Your task to perform on an android device: Clear all items from cart on bestbuy.com. Search for logitech g502 on bestbuy.com, select the first entry, add it to the cart, then select checkout. Image 0: 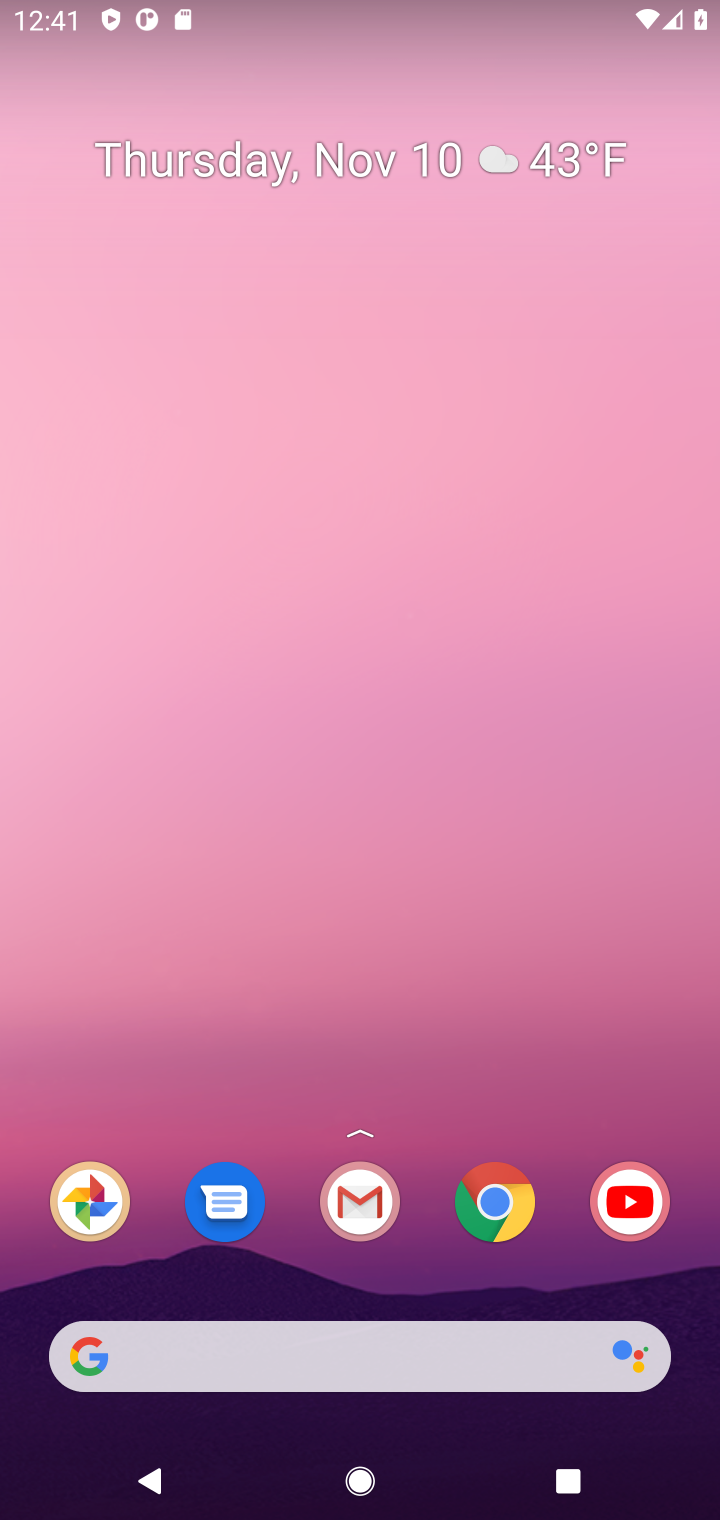
Step 0: click (497, 1179)
Your task to perform on an android device: Clear all items from cart on bestbuy.com. Search for logitech g502 on bestbuy.com, select the first entry, add it to the cart, then select checkout. Image 1: 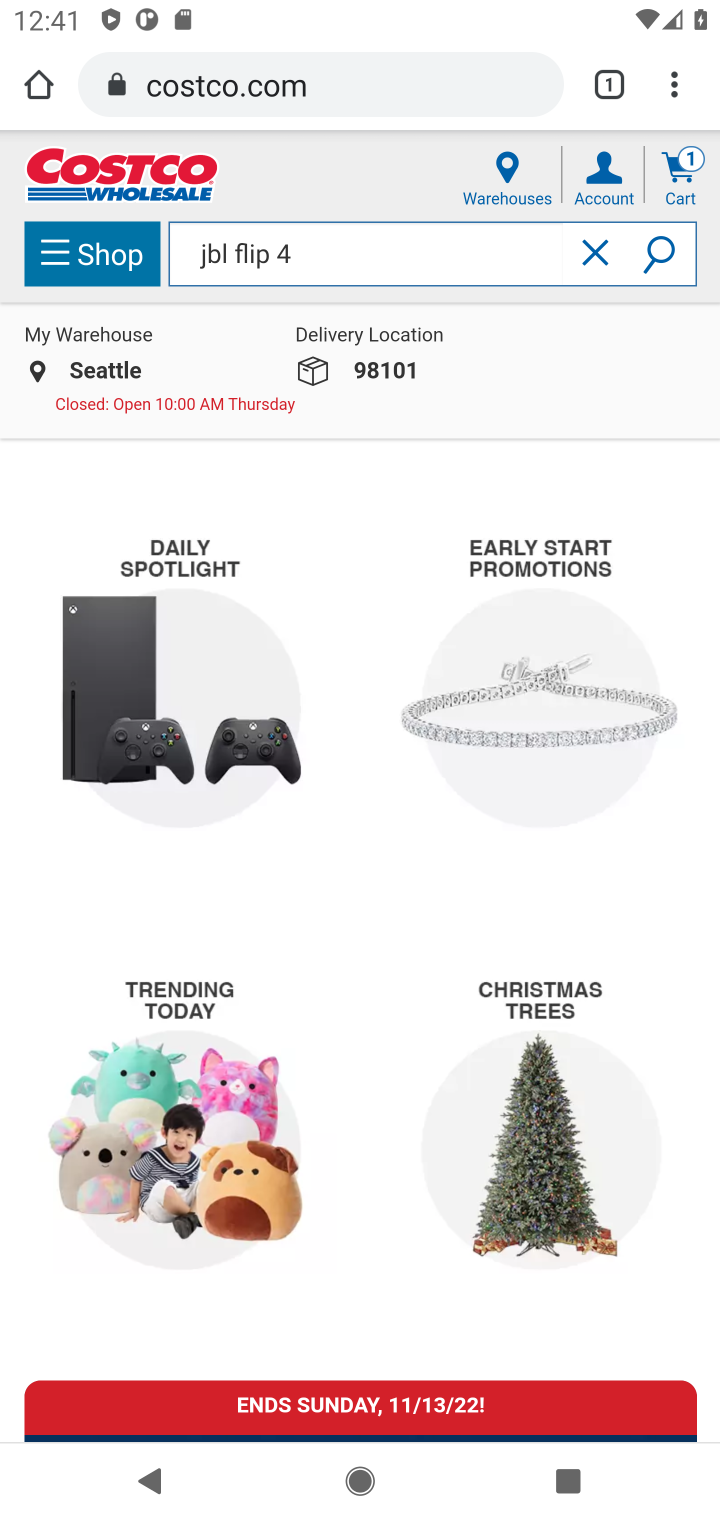
Step 1: click (352, 86)
Your task to perform on an android device: Clear all items from cart on bestbuy.com. Search for logitech g502 on bestbuy.com, select the first entry, add it to the cart, then select checkout. Image 2: 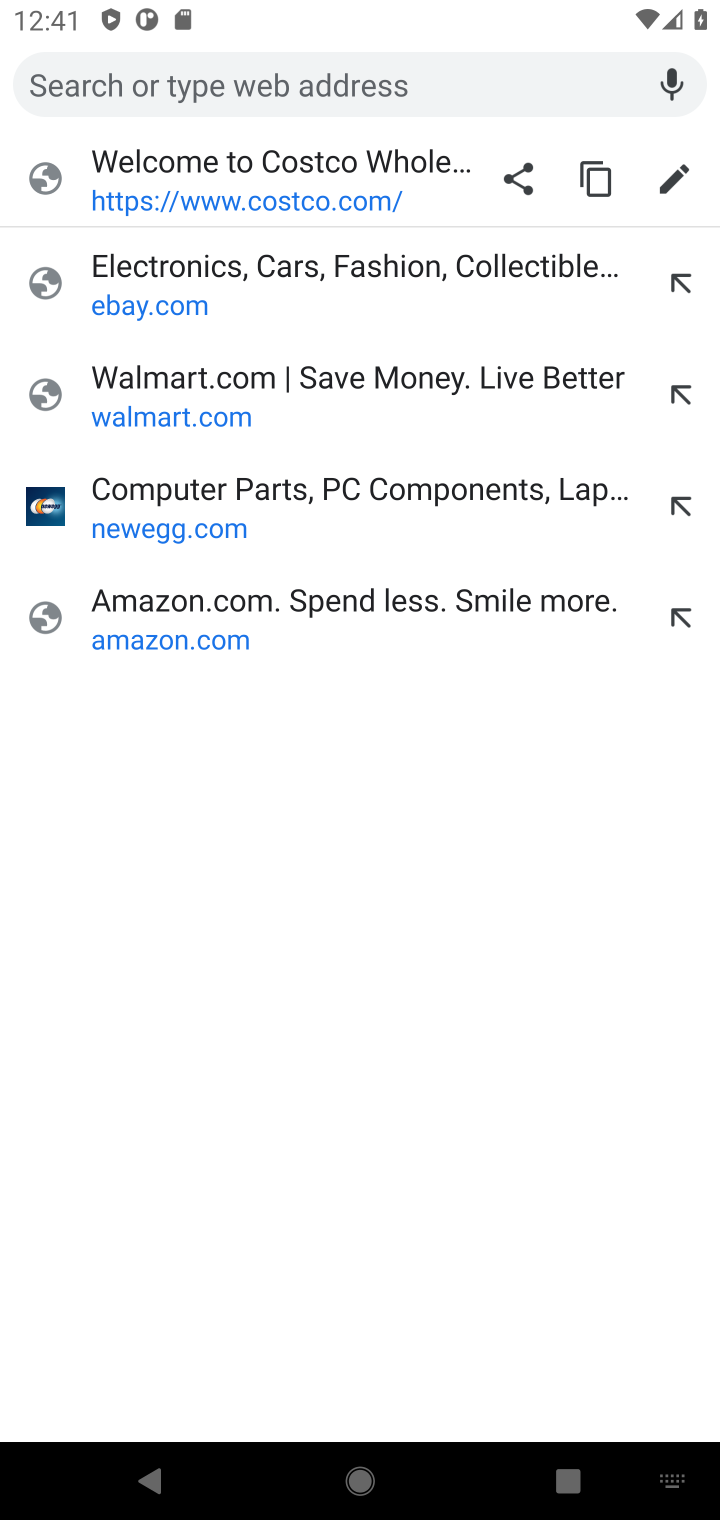
Step 2: type "bestbuy.com"
Your task to perform on an android device: Clear all items from cart on bestbuy.com. Search for logitech g502 on bestbuy.com, select the first entry, add it to the cart, then select checkout. Image 3: 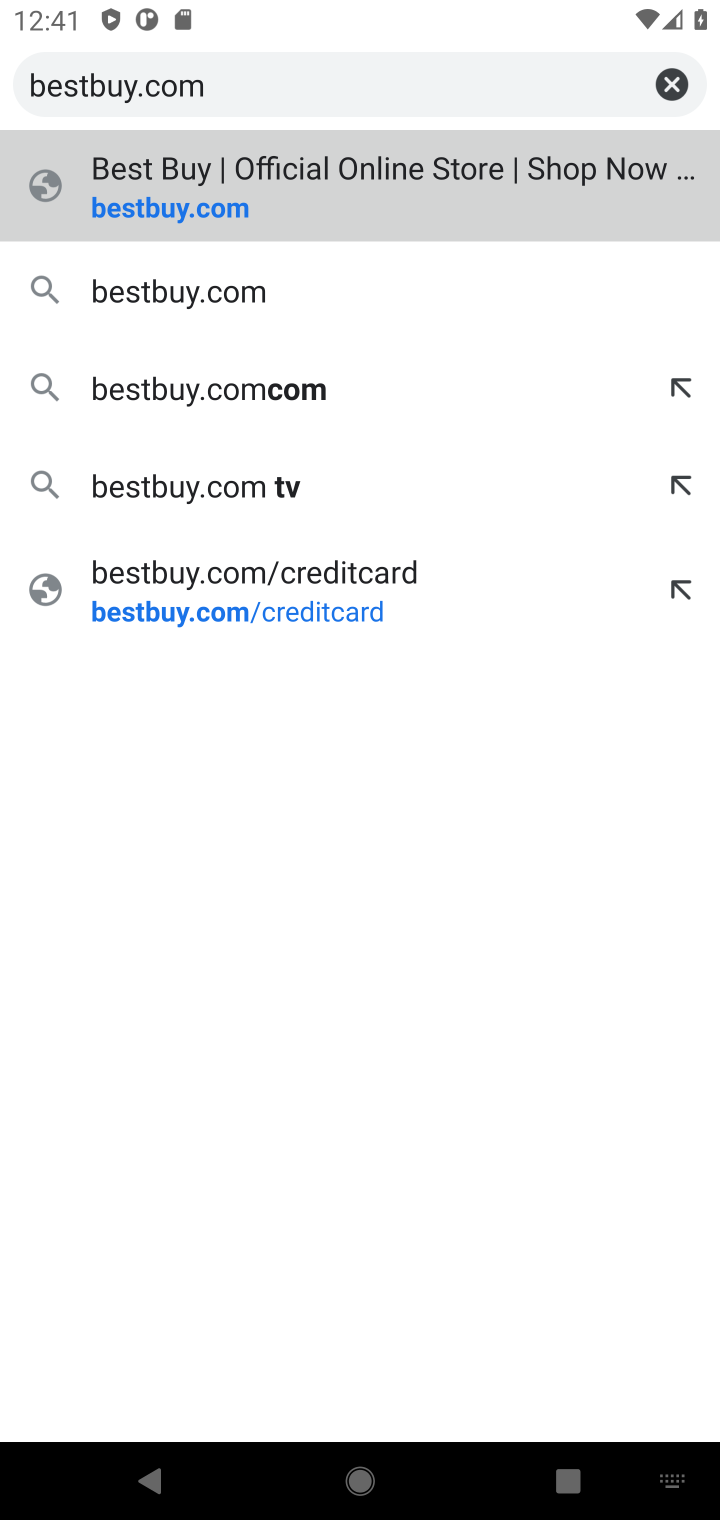
Step 3: click (239, 294)
Your task to perform on an android device: Clear all items from cart on bestbuy.com. Search for logitech g502 on bestbuy.com, select the first entry, add it to the cart, then select checkout. Image 4: 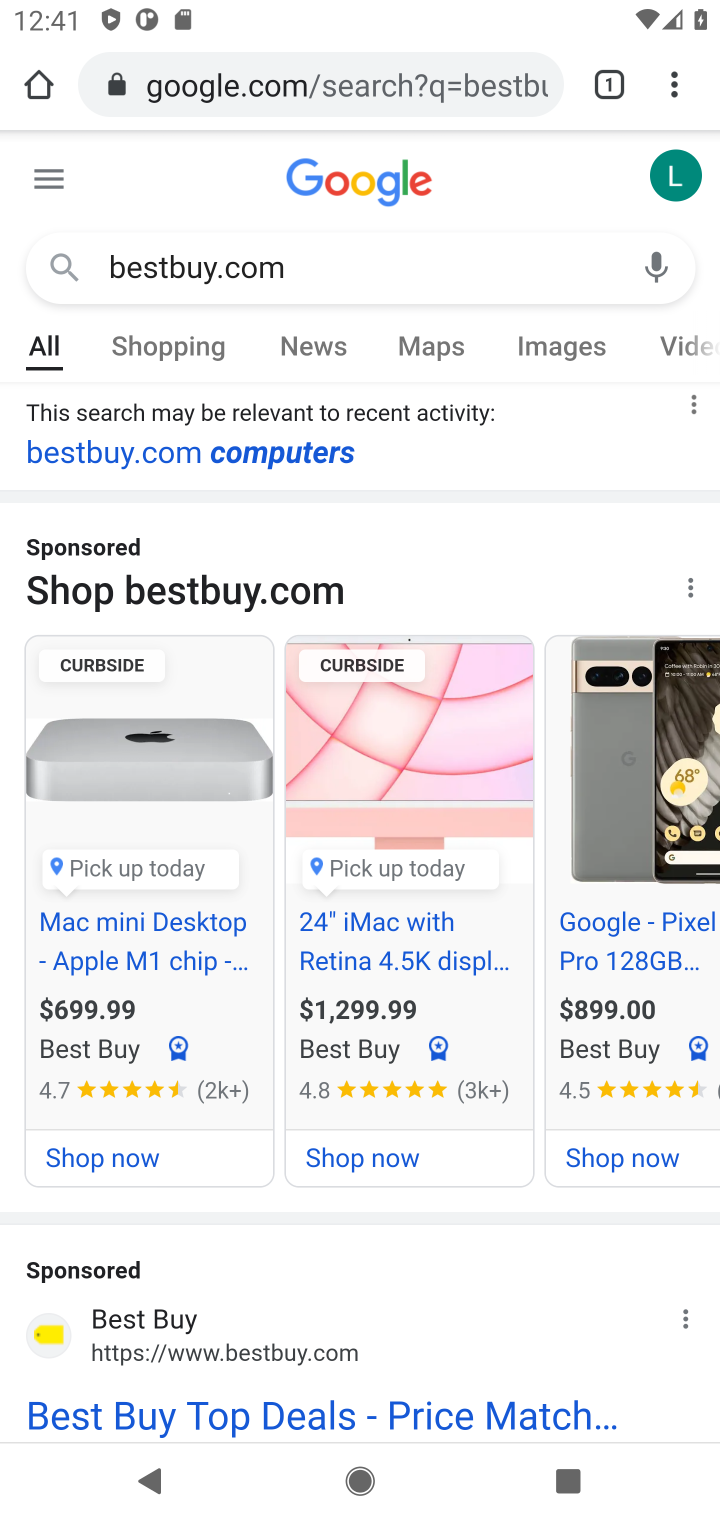
Step 4: click (326, 1348)
Your task to perform on an android device: Clear all items from cart on bestbuy.com. Search for logitech g502 on bestbuy.com, select the first entry, add it to the cart, then select checkout. Image 5: 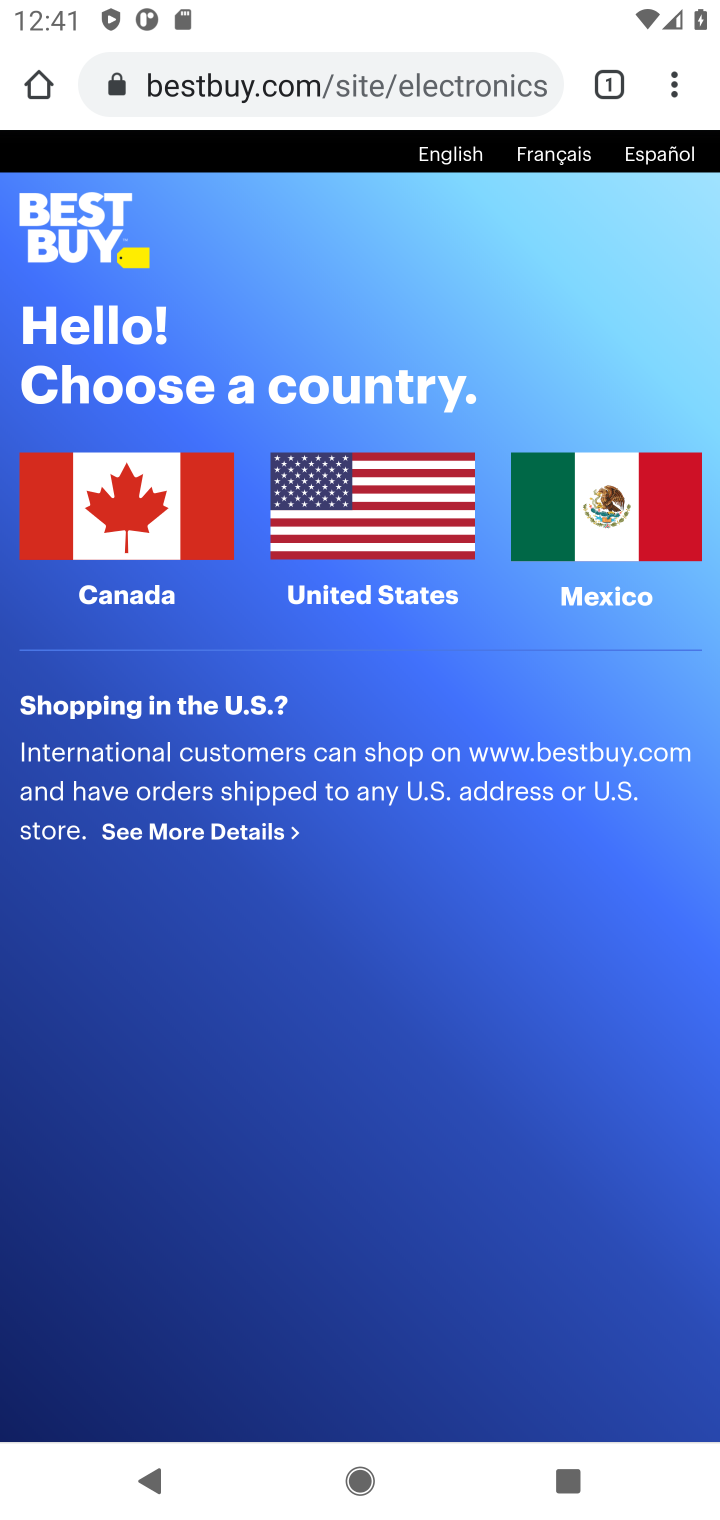
Step 5: click (380, 526)
Your task to perform on an android device: Clear all items from cart on bestbuy.com. Search for logitech g502 on bestbuy.com, select the first entry, add it to the cart, then select checkout. Image 6: 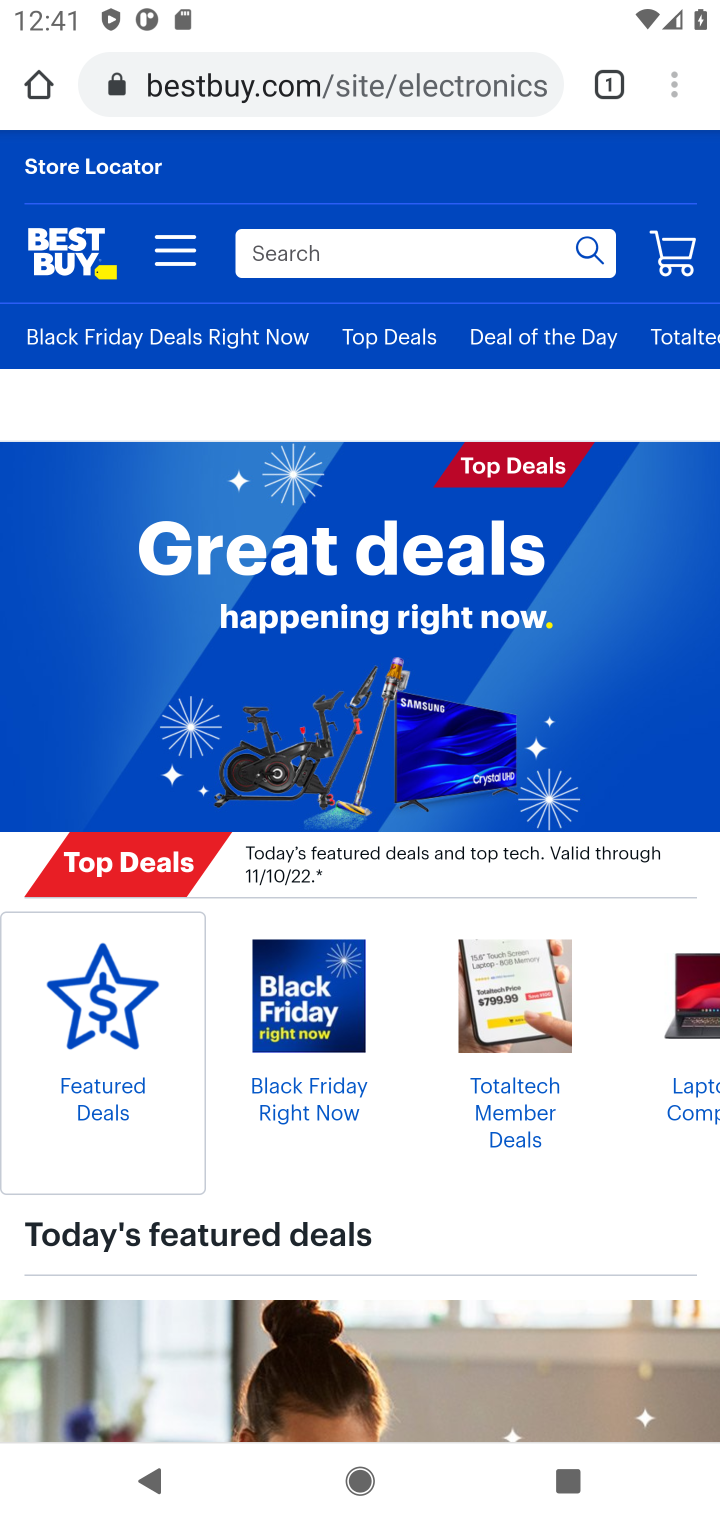
Step 6: click (676, 262)
Your task to perform on an android device: Clear all items from cart on bestbuy.com. Search for logitech g502 on bestbuy.com, select the first entry, add it to the cart, then select checkout. Image 7: 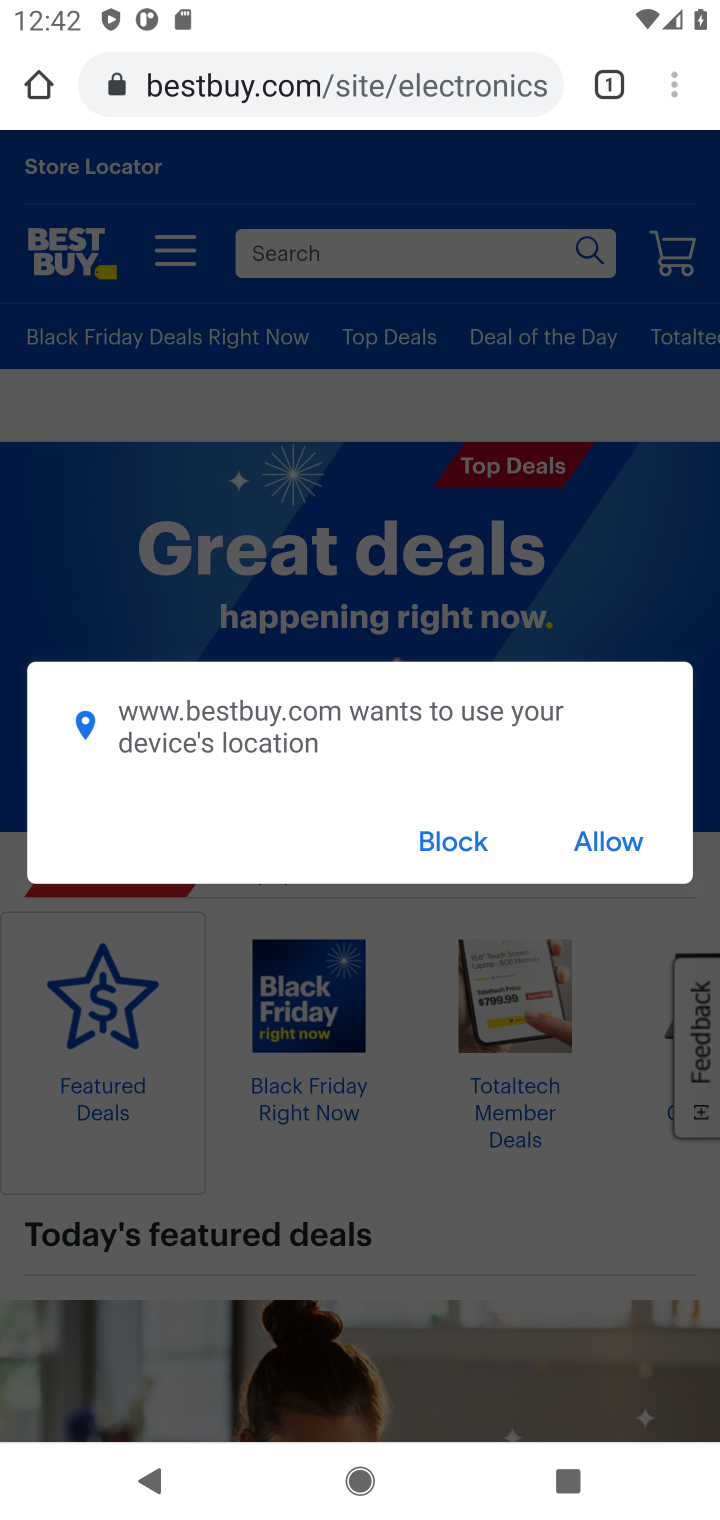
Step 7: click (676, 262)
Your task to perform on an android device: Clear all items from cart on bestbuy.com. Search for logitech g502 on bestbuy.com, select the first entry, add it to the cart, then select checkout. Image 8: 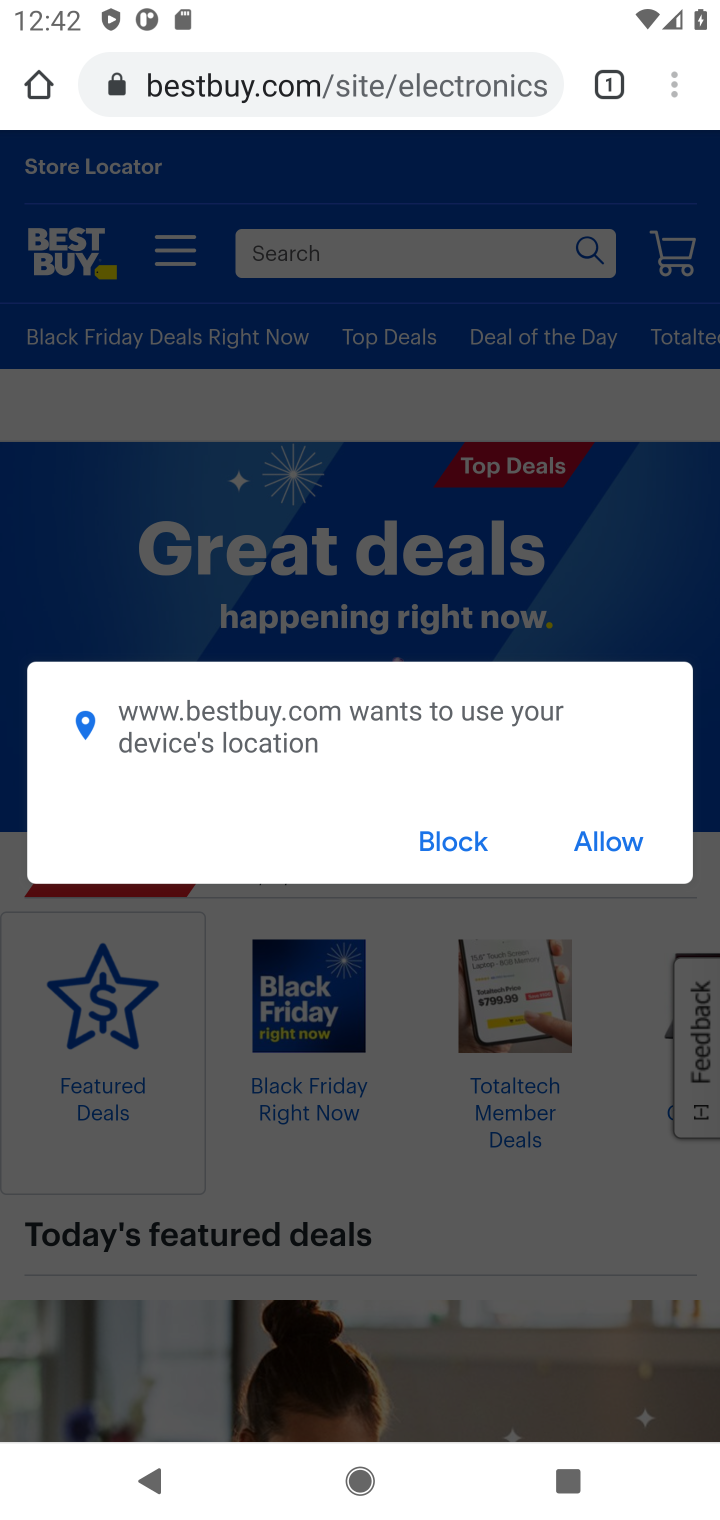
Step 8: click (466, 844)
Your task to perform on an android device: Clear all items from cart on bestbuy.com. Search for logitech g502 on bestbuy.com, select the first entry, add it to the cart, then select checkout. Image 9: 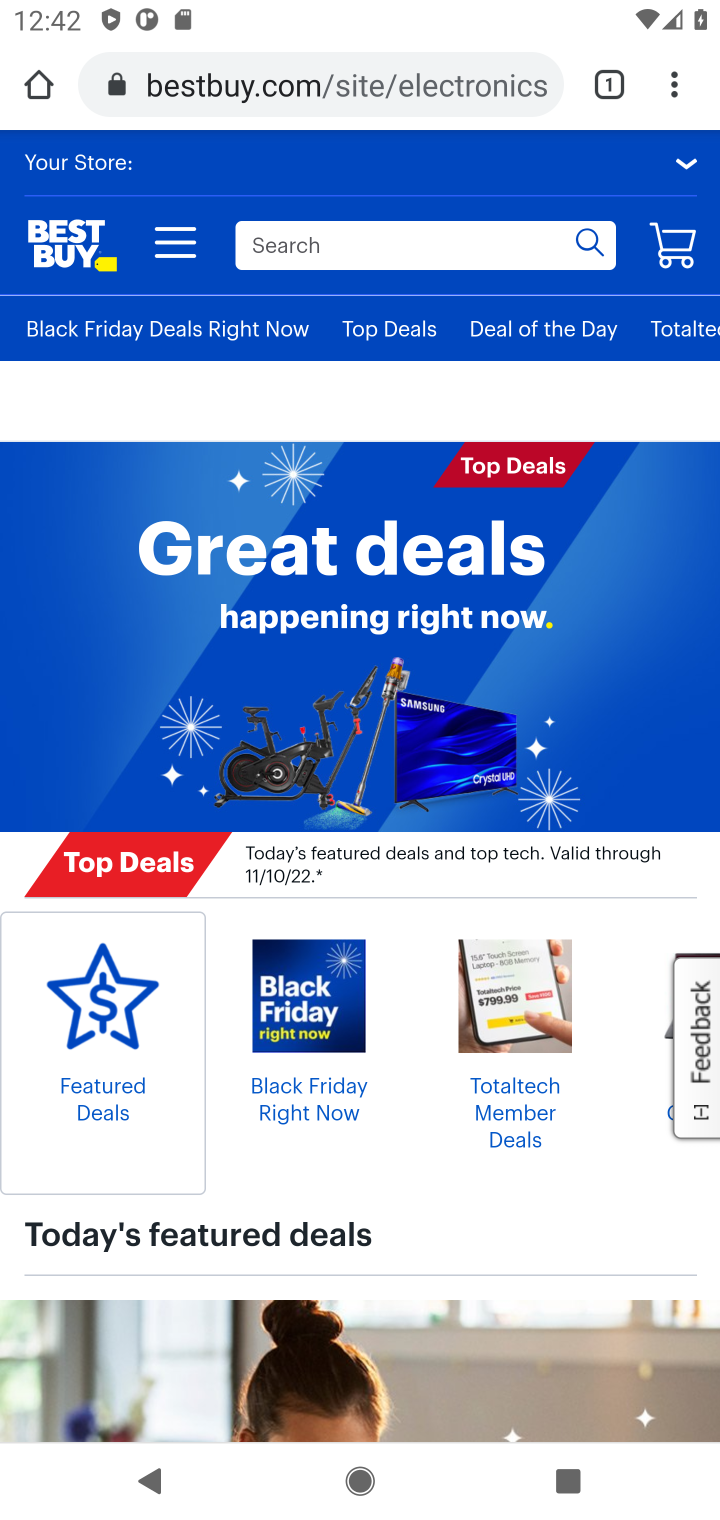
Step 9: click (675, 258)
Your task to perform on an android device: Clear all items from cart on bestbuy.com. Search for logitech g502 on bestbuy.com, select the first entry, add it to the cart, then select checkout. Image 10: 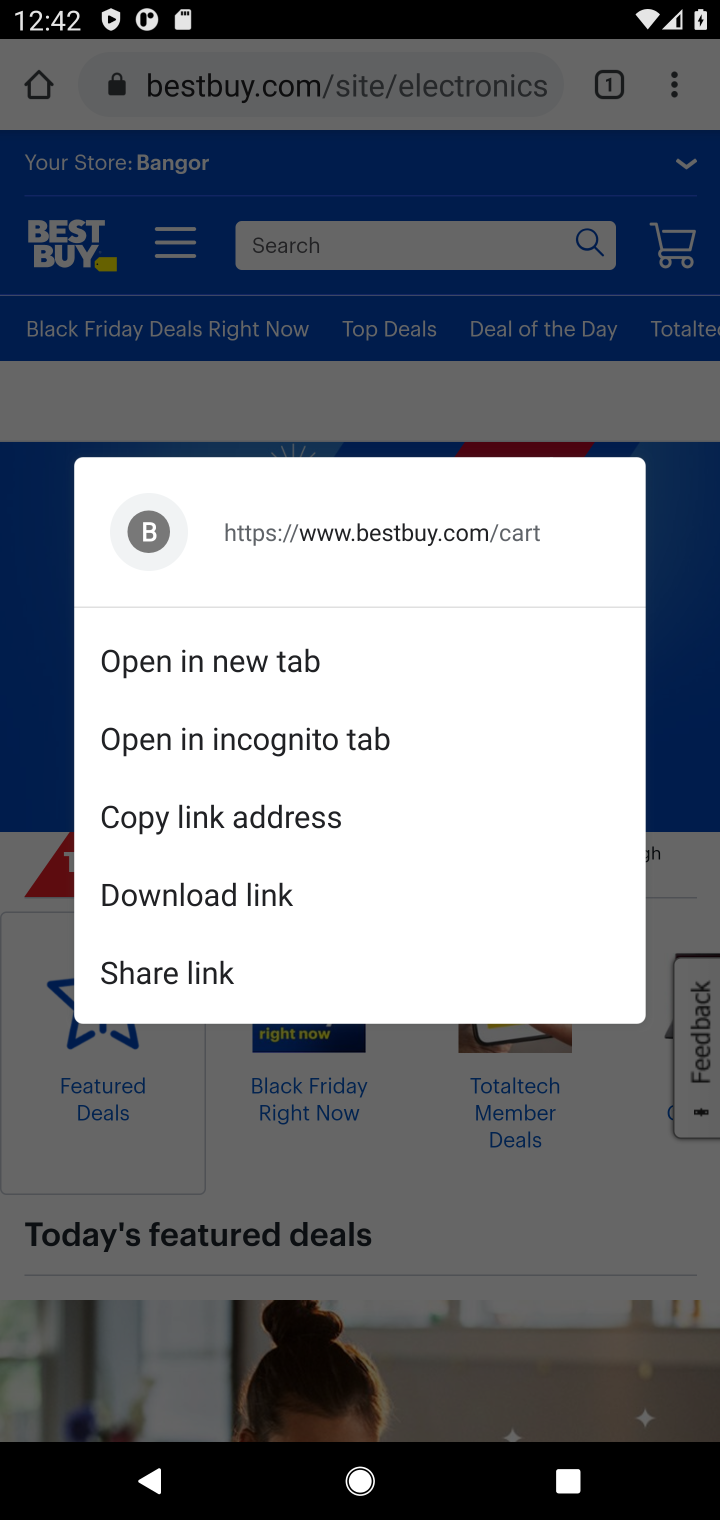
Step 10: click (675, 258)
Your task to perform on an android device: Clear all items from cart on bestbuy.com. Search for logitech g502 on bestbuy.com, select the first entry, add it to the cart, then select checkout. Image 11: 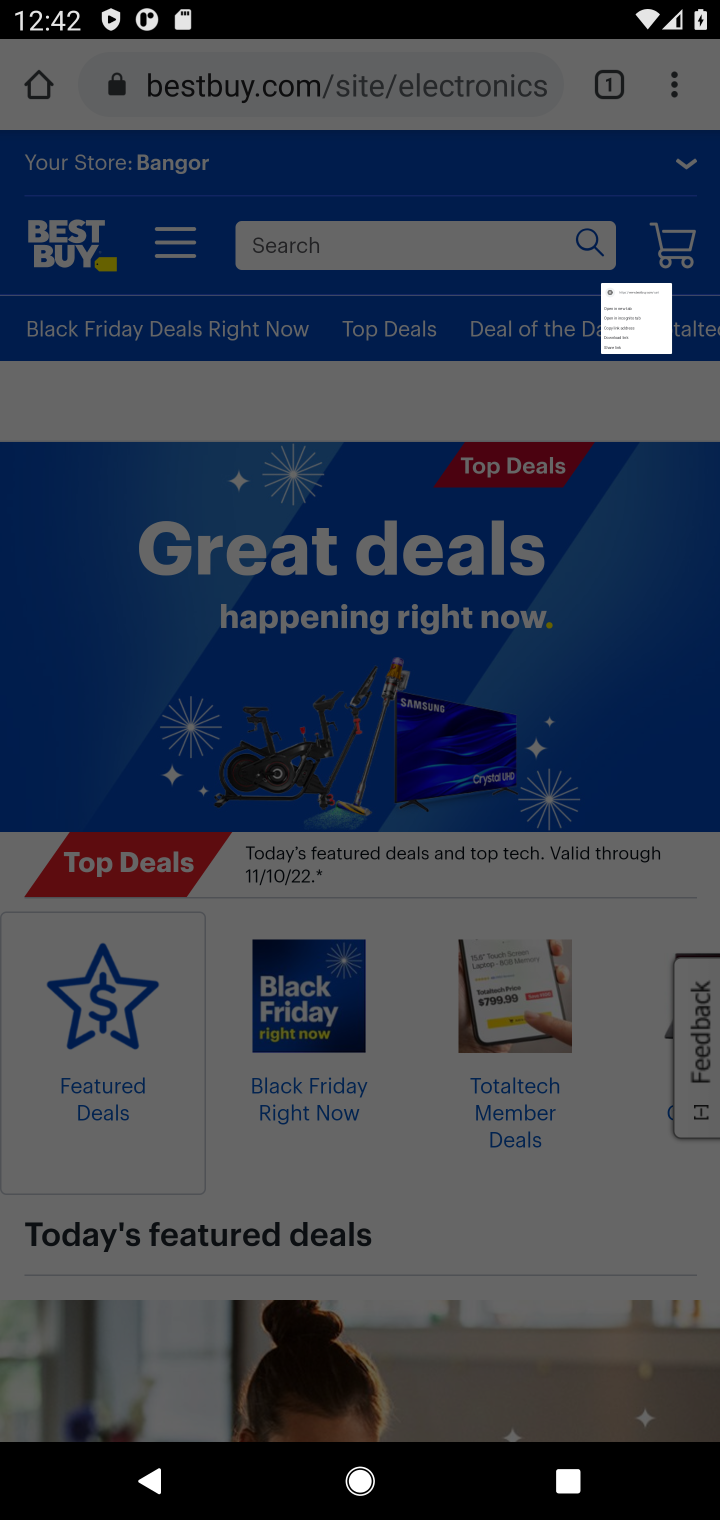
Step 11: click (435, 216)
Your task to perform on an android device: Clear all items from cart on bestbuy.com. Search for logitech g502 on bestbuy.com, select the first entry, add it to the cart, then select checkout. Image 12: 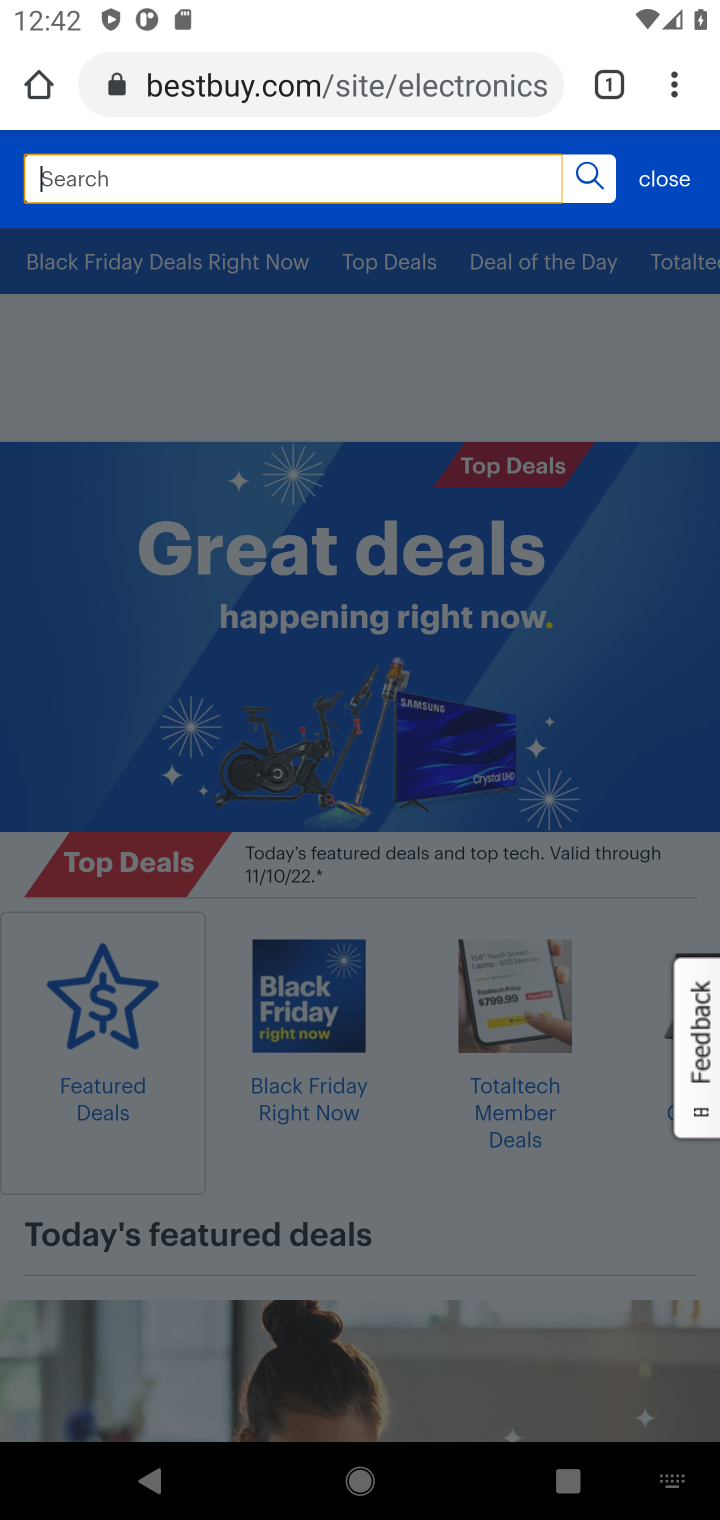
Step 12: click (469, 244)
Your task to perform on an android device: Clear all items from cart on bestbuy.com. Search for logitech g502 on bestbuy.com, select the first entry, add it to the cart, then select checkout. Image 13: 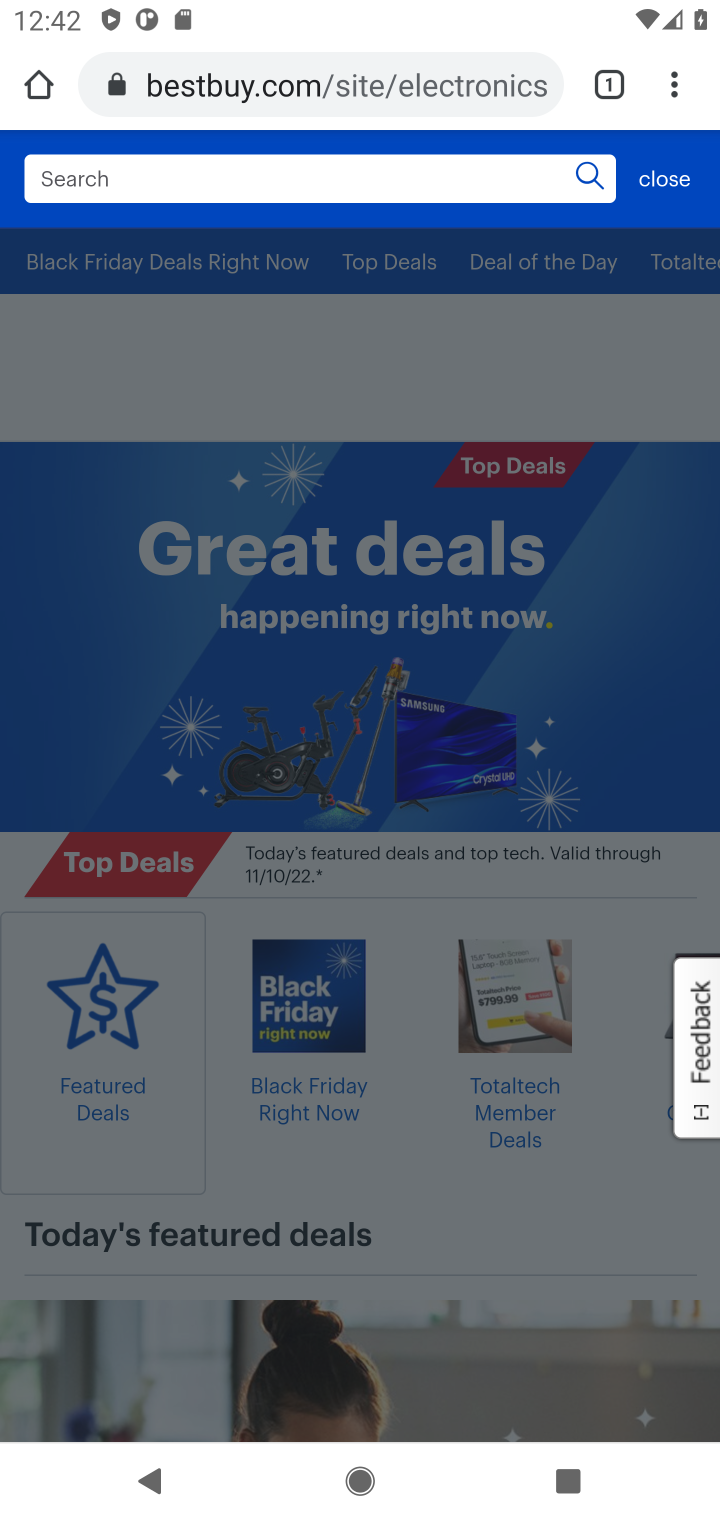
Step 13: click (492, 188)
Your task to perform on an android device: Clear all items from cart on bestbuy.com. Search for logitech g502 on bestbuy.com, select the first entry, add it to the cart, then select checkout. Image 14: 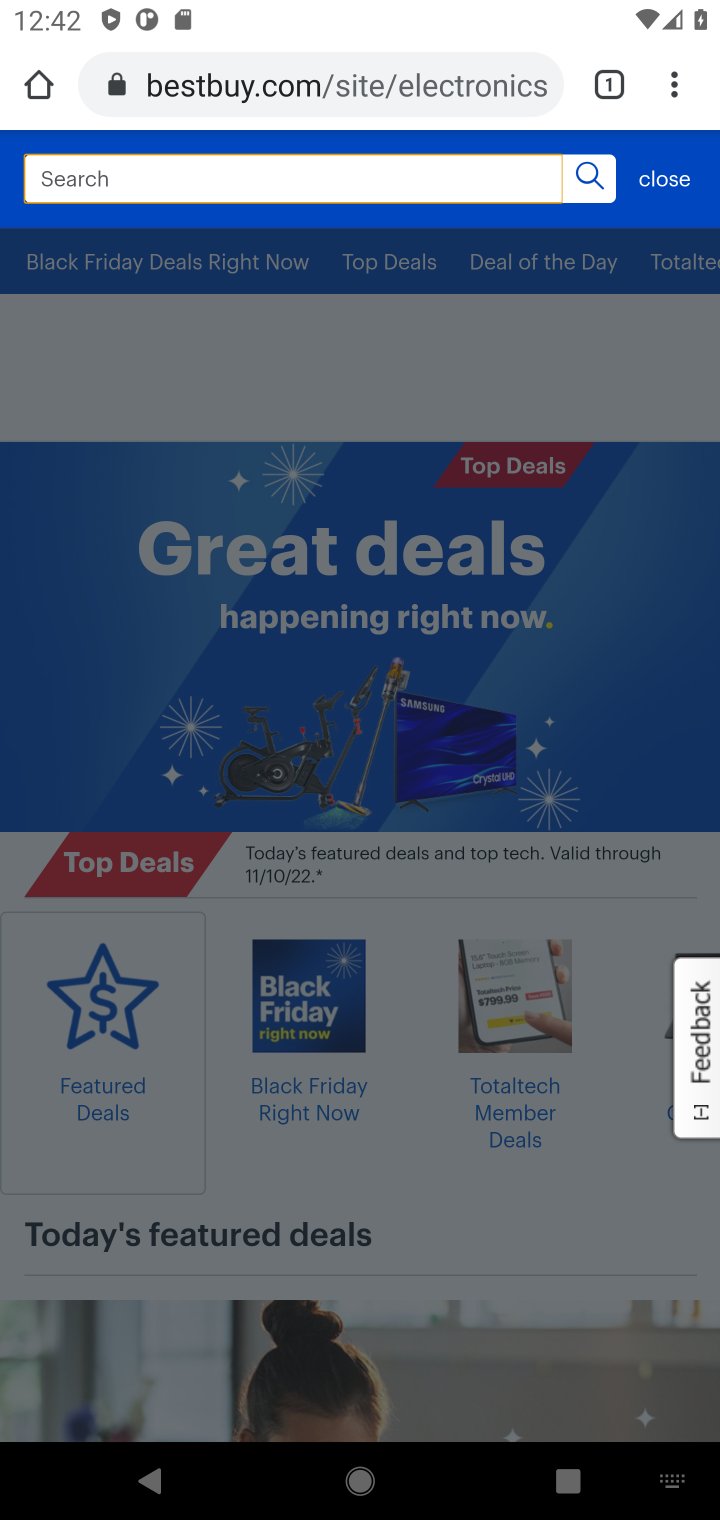
Step 14: type "logitech g502 "
Your task to perform on an android device: Clear all items from cart on bestbuy.com. Search for logitech g502 on bestbuy.com, select the first entry, add it to the cart, then select checkout. Image 15: 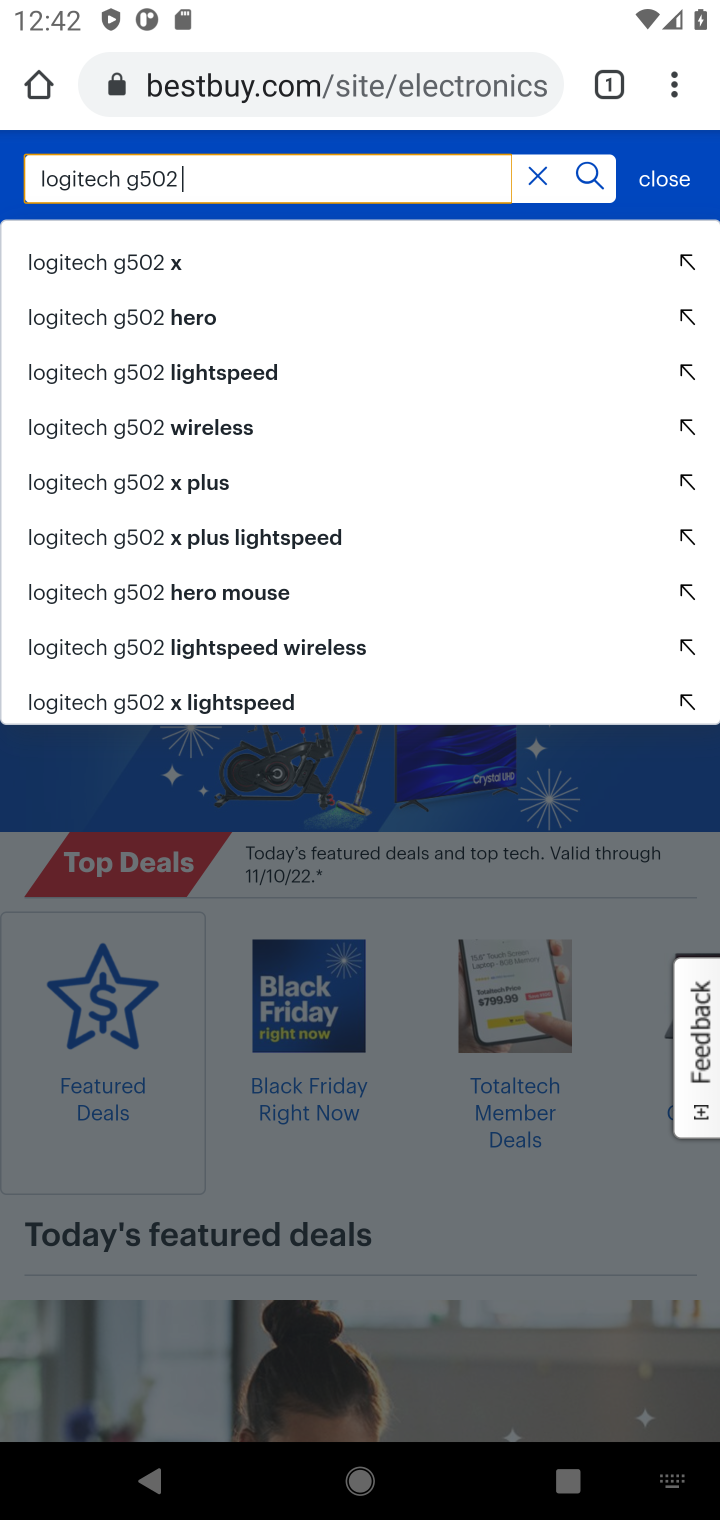
Step 15: click (543, 844)
Your task to perform on an android device: Clear all items from cart on bestbuy.com. Search for logitech g502 on bestbuy.com, select the first entry, add it to the cart, then select checkout. Image 16: 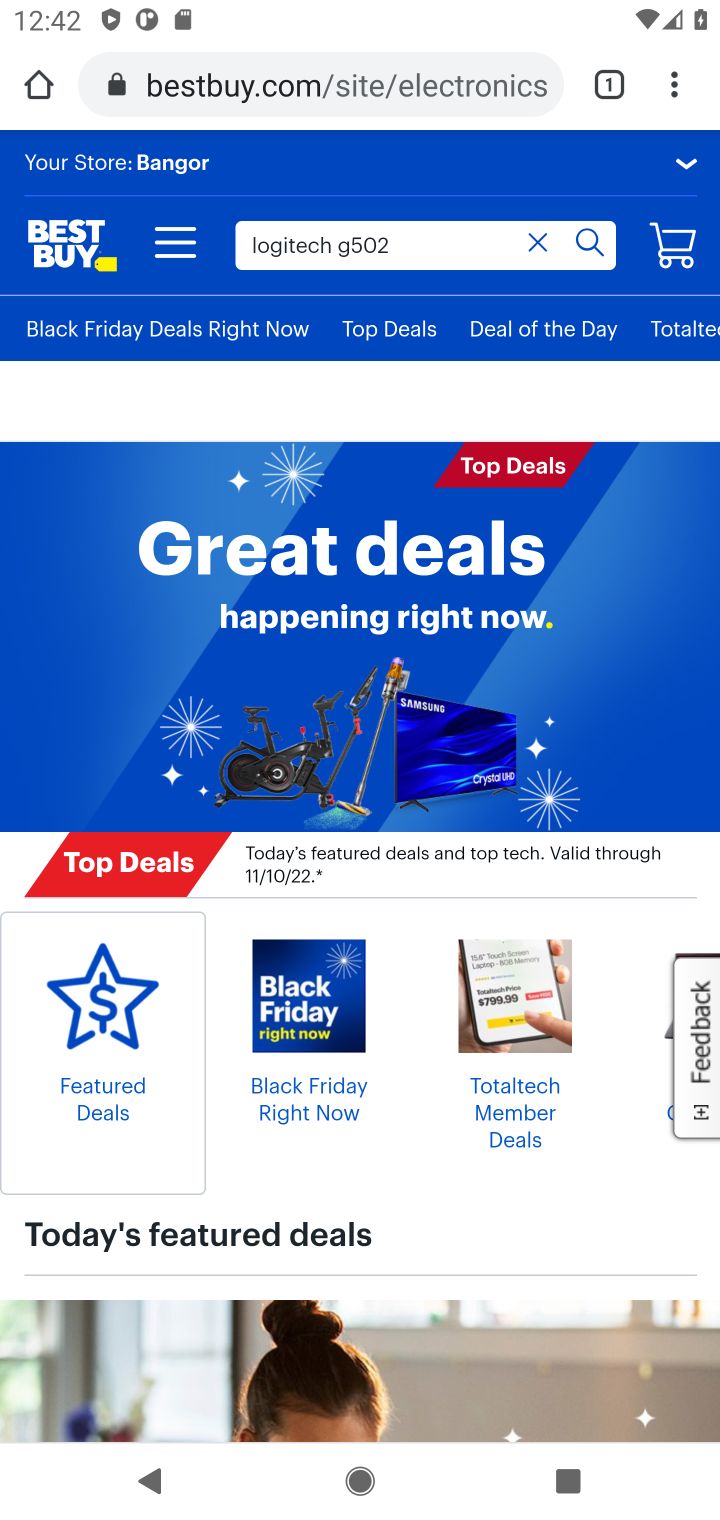
Step 16: task complete